Your task to perform on an android device: toggle notification dots Image 0: 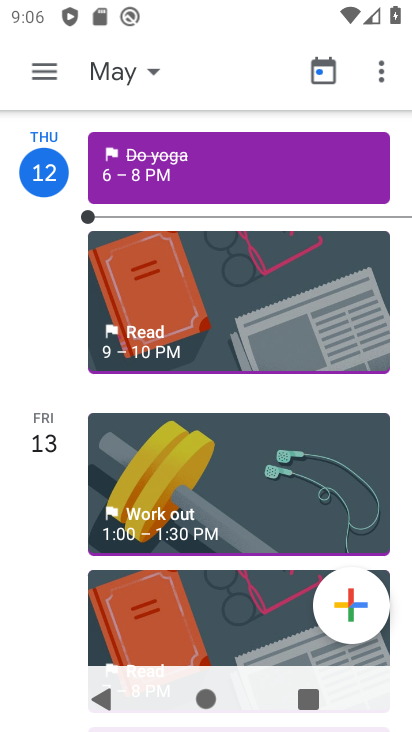
Step 0: press home button
Your task to perform on an android device: toggle notification dots Image 1: 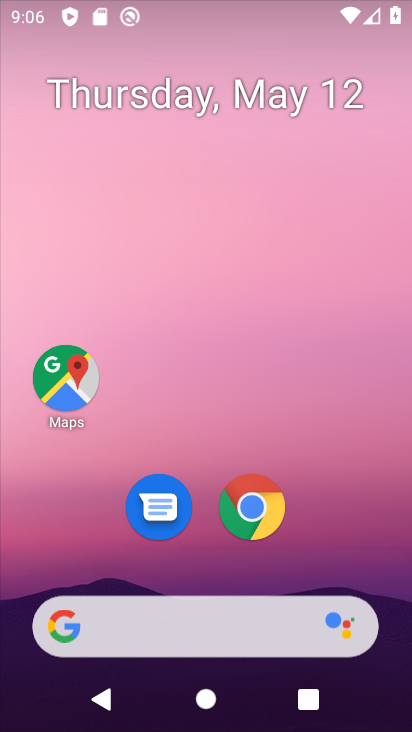
Step 1: drag from (209, 571) to (197, 159)
Your task to perform on an android device: toggle notification dots Image 2: 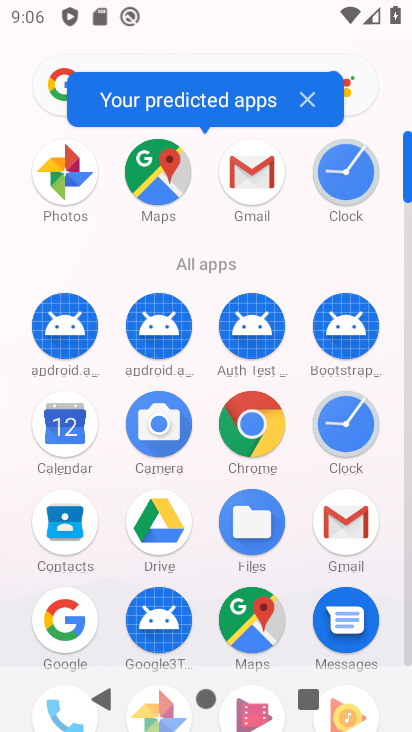
Step 2: drag from (206, 547) to (189, 233)
Your task to perform on an android device: toggle notification dots Image 3: 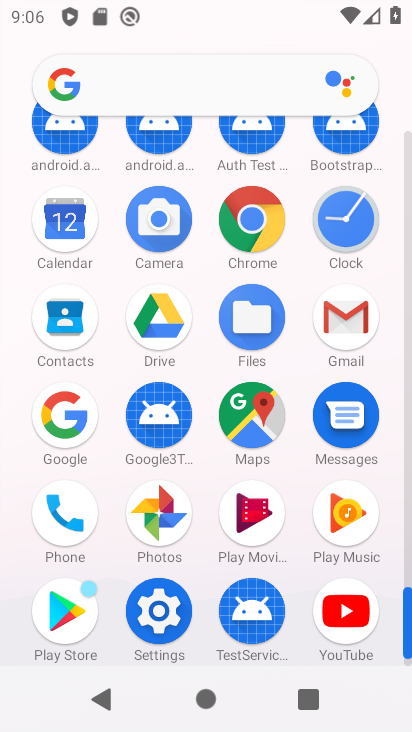
Step 3: click (161, 593)
Your task to perform on an android device: toggle notification dots Image 4: 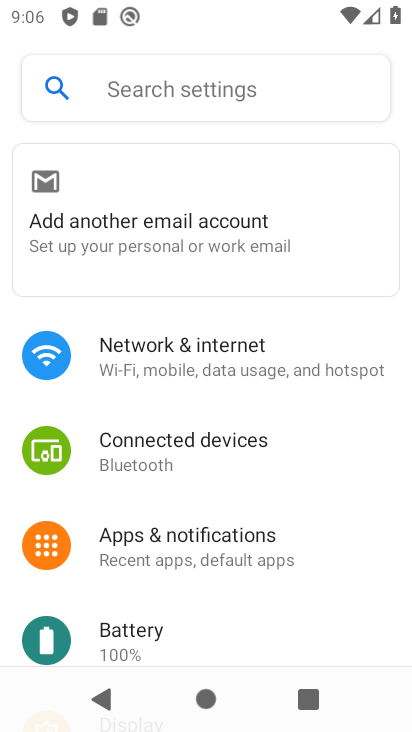
Step 4: click (166, 544)
Your task to perform on an android device: toggle notification dots Image 5: 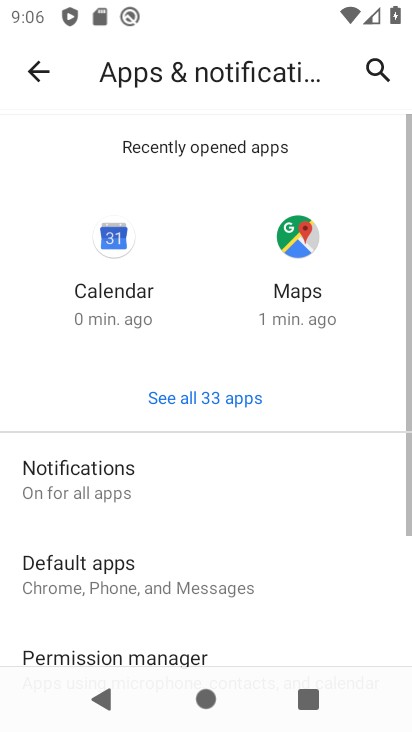
Step 5: click (119, 463)
Your task to perform on an android device: toggle notification dots Image 6: 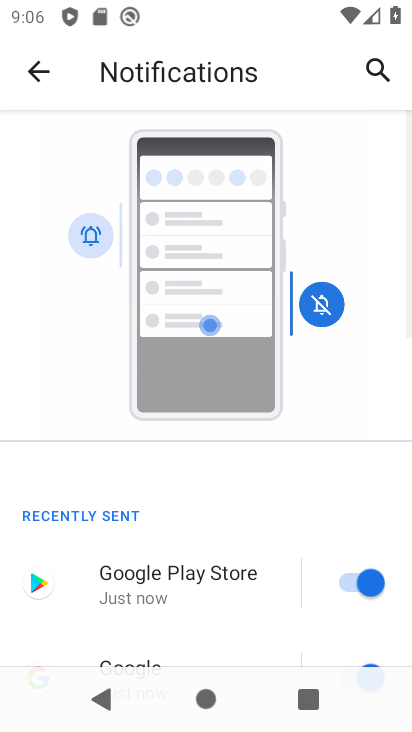
Step 6: drag from (172, 530) to (172, 212)
Your task to perform on an android device: toggle notification dots Image 7: 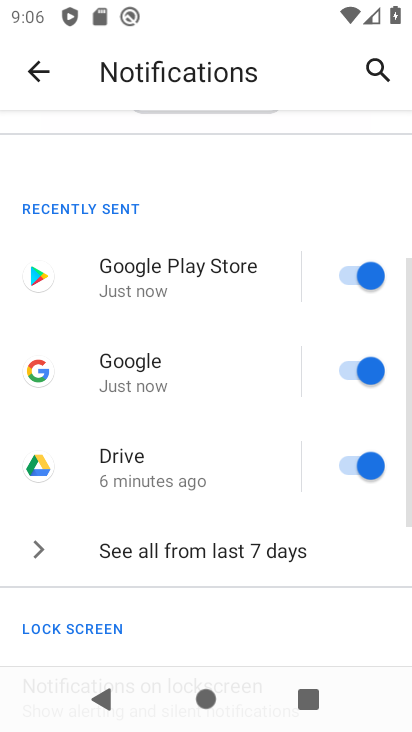
Step 7: drag from (194, 527) to (202, 145)
Your task to perform on an android device: toggle notification dots Image 8: 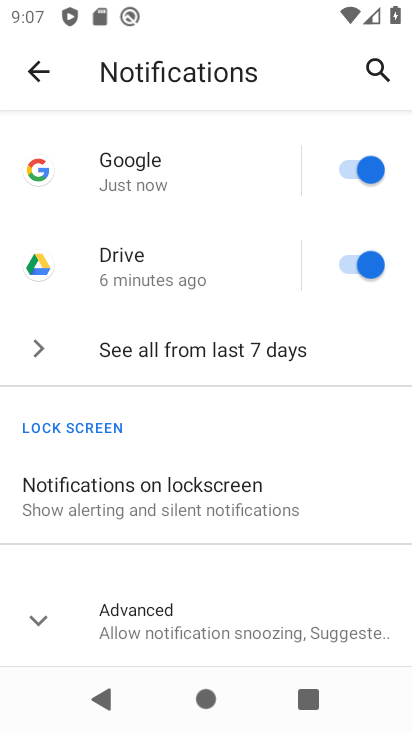
Step 8: click (131, 622)
Your task to perform on an android device: toggle notification dots Image 9: 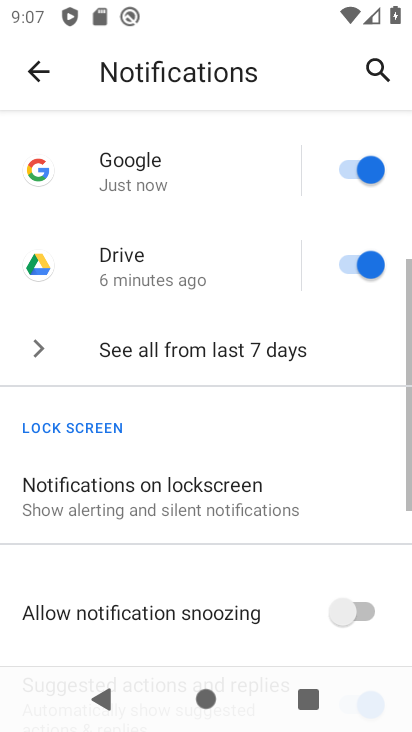
Step 9: drag from (185, 522) to (197, 284)
Your task to perform on an android device: toggle notification dots Image 10: 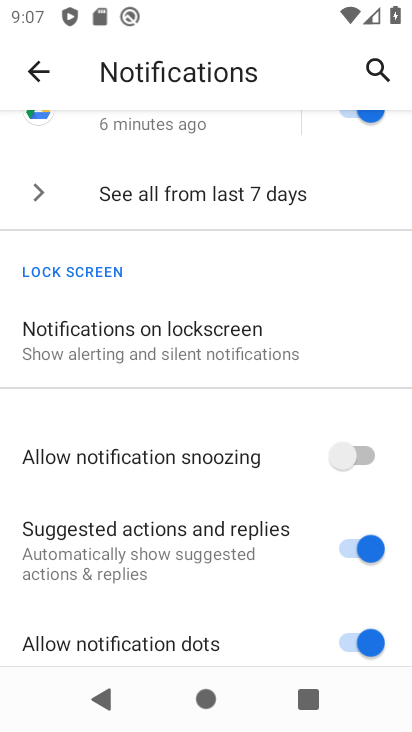
Step 10: click (342, 640)
Your task to perform on an android device: toggle notification dots Image 11: 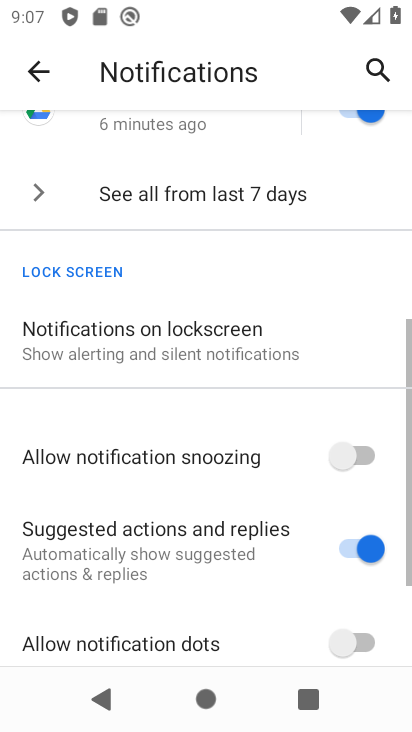
Step 11: task complete